Your task to perform on an android device: Open Google Chrome and click the shortcut for Amazon.com Image 0: 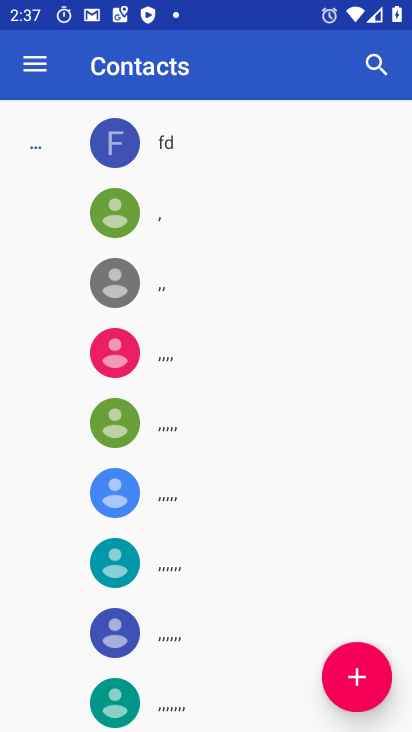
Step 0: press home button
Your task to perform on an android device: Open Google Chrome and click the shortcut for Amazon.com Image 1: 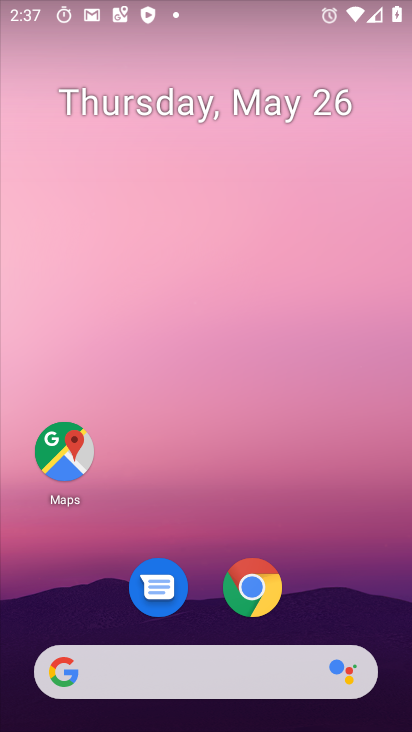
Step 1: drag from (272, 700) to (301, 91)
Your task to perform on an android device: Open Google Chrome and click the shortcut for Amazon.com Image 2: 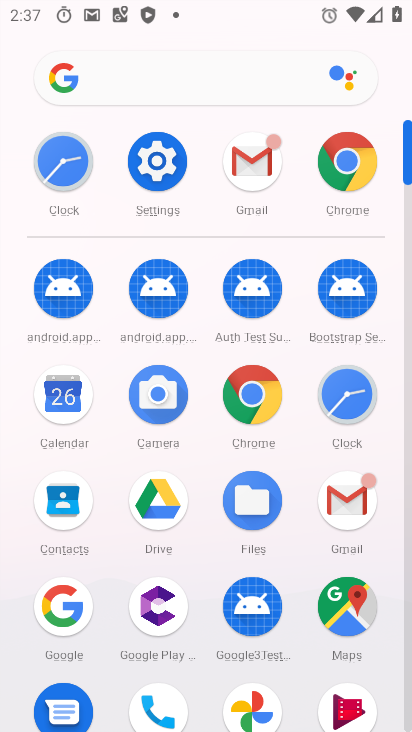
Step 2: click (346, 176)
Your task to perform on an android device: Open Google Chrome and click the shortcut for Amazon.com Image 3: 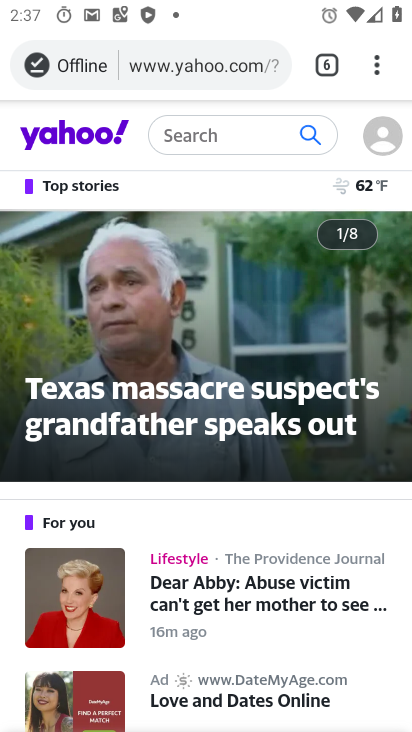
Step 3: click (329, 62)
Your task to perform on an android device: Open Google Chrome and click the shortcut for Amazon.com Image 4: 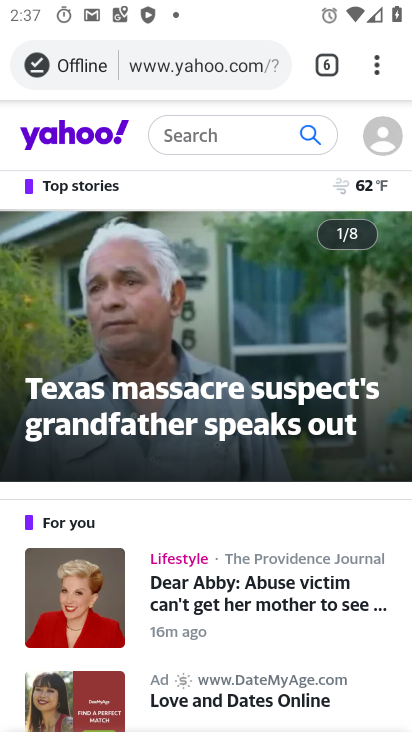
Step 4: click (319, 61)
Your task to perform on an android device: Open Google Chrome and click the shortcut for Amazon.com Image 5: 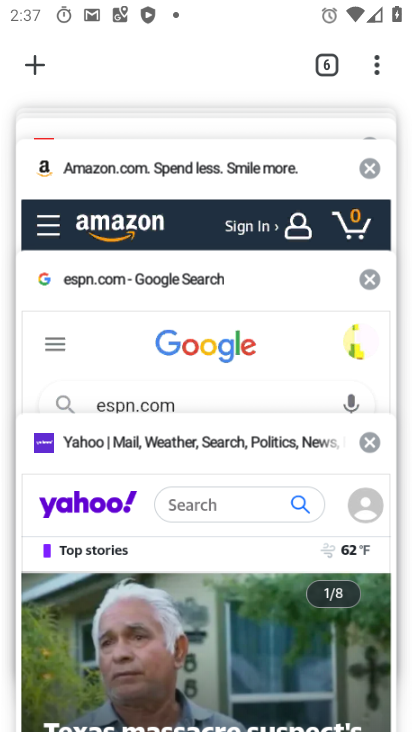
Step 5: click (28, 65)
Your task to perform on an android device: Open Google Chrome and click the shortcut for Amazon.com Image 6: 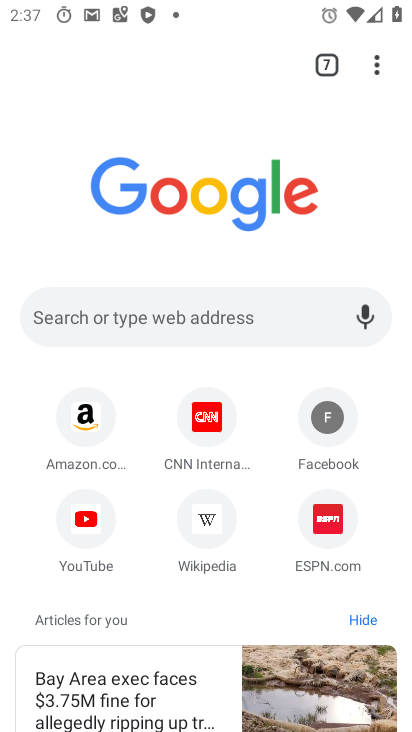
Step 6: click (95, 433)
Your task to perform on an android device: Open Google Chrome and click the shortcut for Amazon.com Image 7: 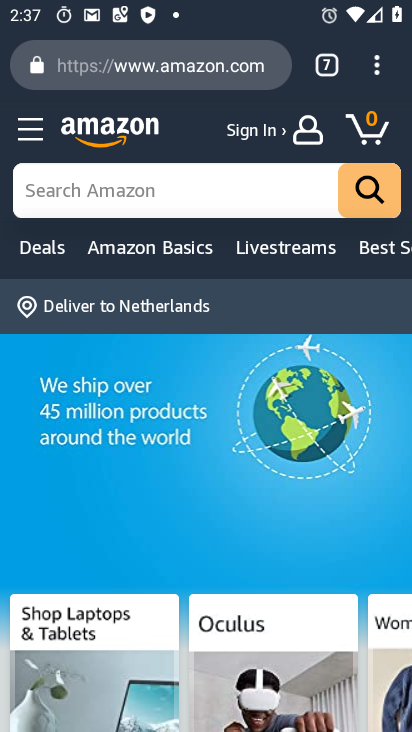
Step 7: click (367, 84)
Your task to perform on an android device: Open Google Chrome and click the shortcut for Amazon.com Image 8: 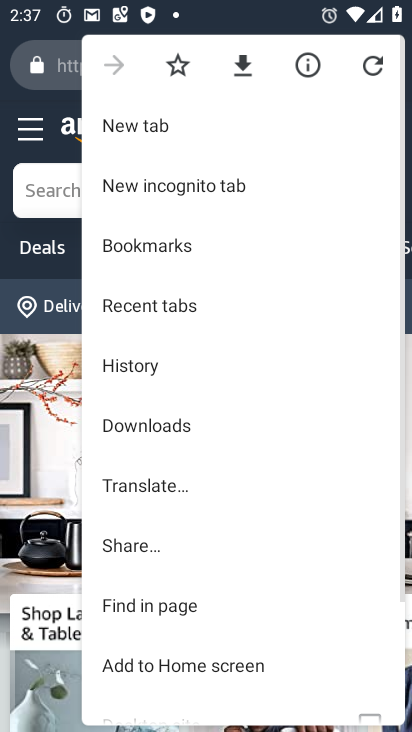
Step 8: drag from (168, 615) to (165, 487)
Your task to perform on an android device: Open Google Chrome and click the shortcut for Amazon.com Image 9: 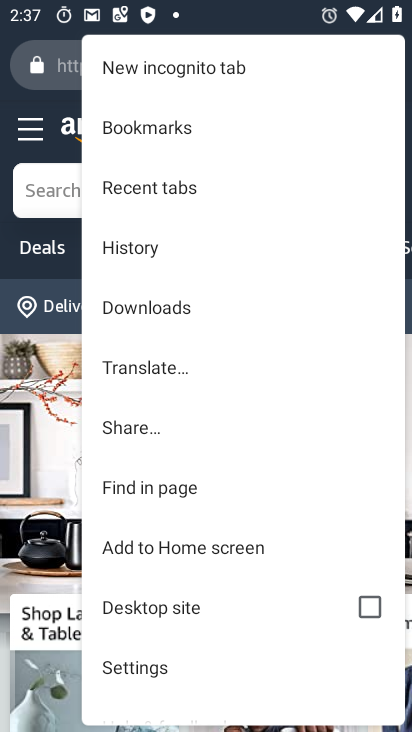
Step 9: click (229, 547)
Your task to perform on an android device: Open Google Chrome and click the shortcut for Amazon.com Image 10: 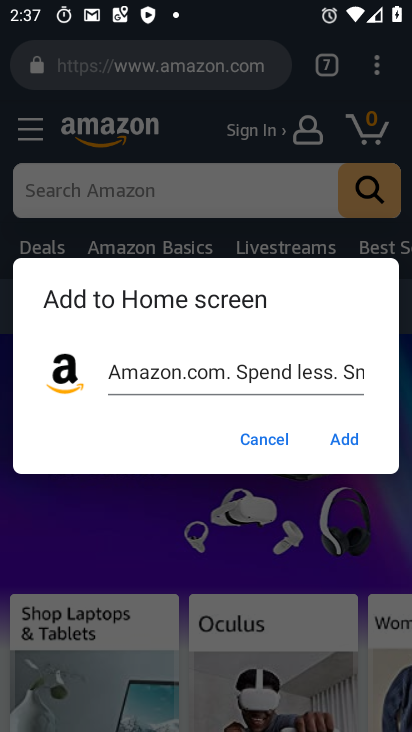
Step 10: click (358, 437)
Your task to perform on an android device: Open Google Chrome and click the shortcut for Amazon.com Image 11: 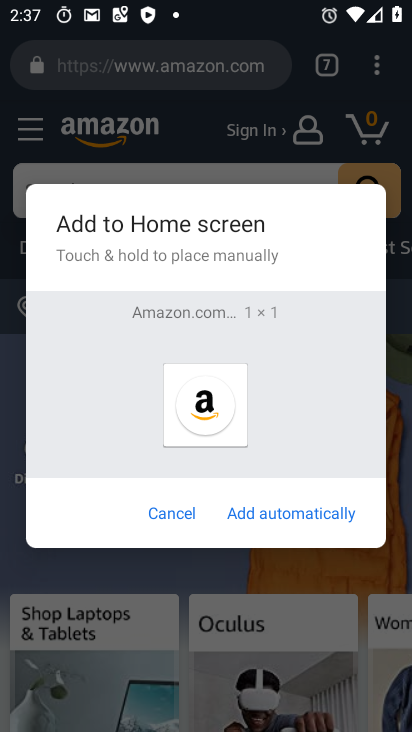
Step 11: click (330, 509)
Your task to perform on an android device: Open Google Chrome and click the shortcut for Amazon.com Image 12: 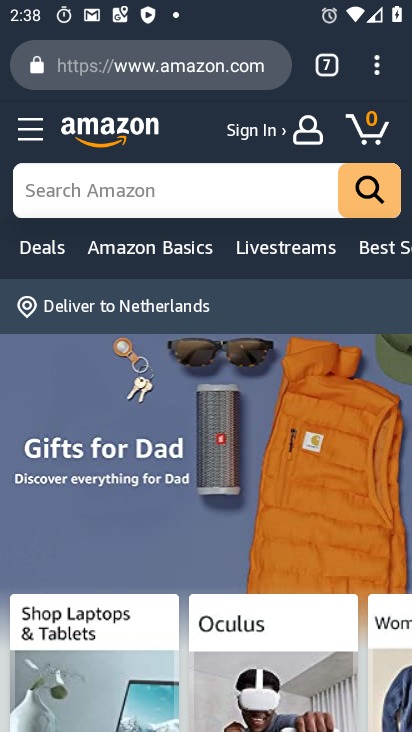
Step 12: task complete